Your task to perform on an android device: set the stopwatch Image 0: 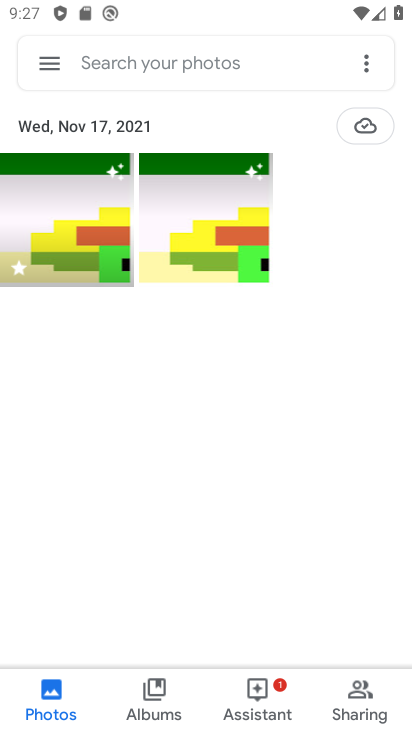
Step 0: press home button
Your task to perform on an android device: set the stopwatch Image 1: 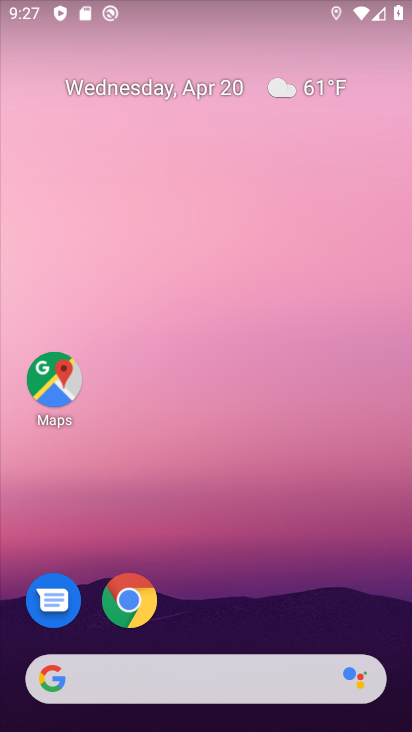
Step 1: drag from (341, 586) to (314, 42)
Your task to perform on an android device: set the stopwatch Image 2: 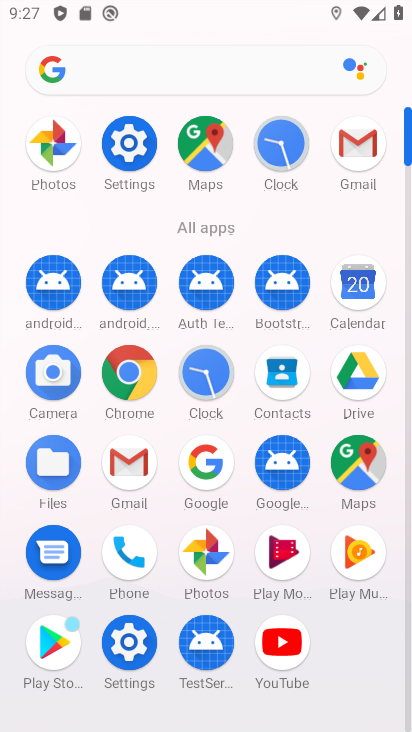
Step 2: click (280, 148)
Your task to perform on an android device: set the stopwatch Image 3: 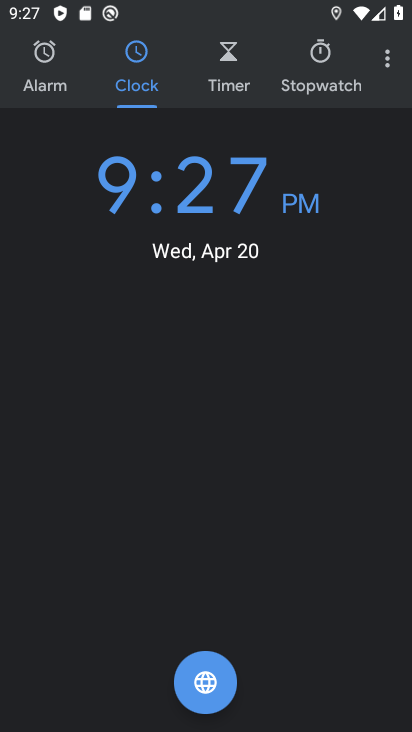
Step 3: click (307, 64)
Your task to perform on an android device: set the stopwatch Image 4: 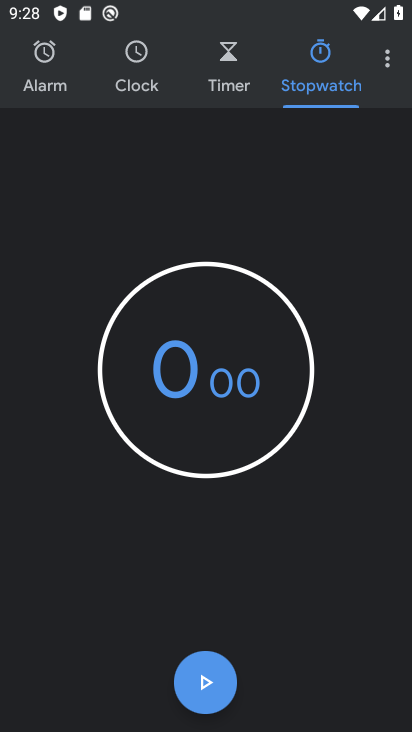
Step 4: click (201, 691)
Your task to perform on an android device: set the stopwatch Image 5: 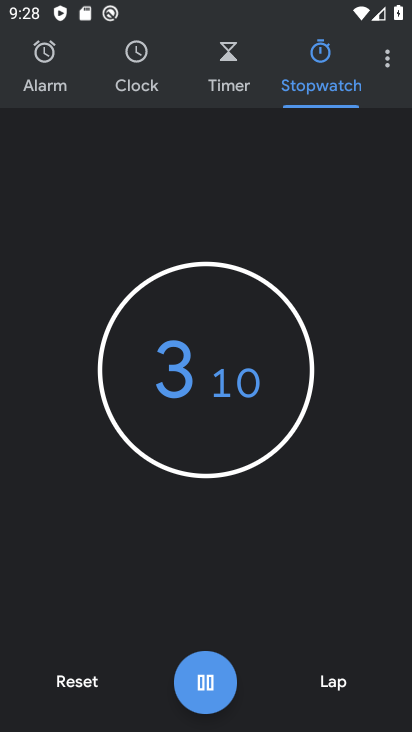
Step 5: click (199, 686)
Your task to perform on an android device: set the stopwatch Image 6: 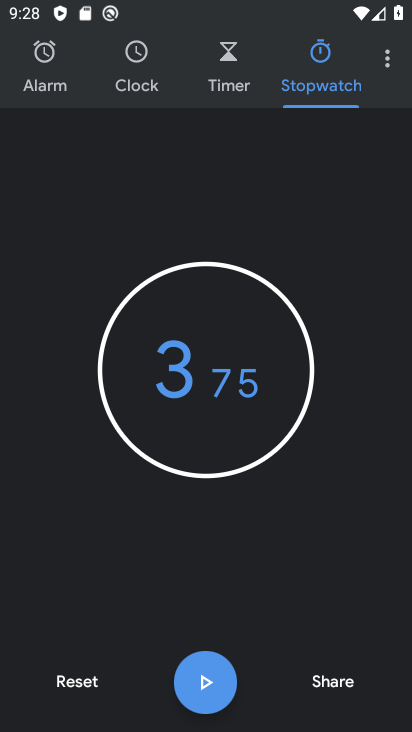
Step 6: task complete